Your task to perform on an android device: Go to settings Image 0: 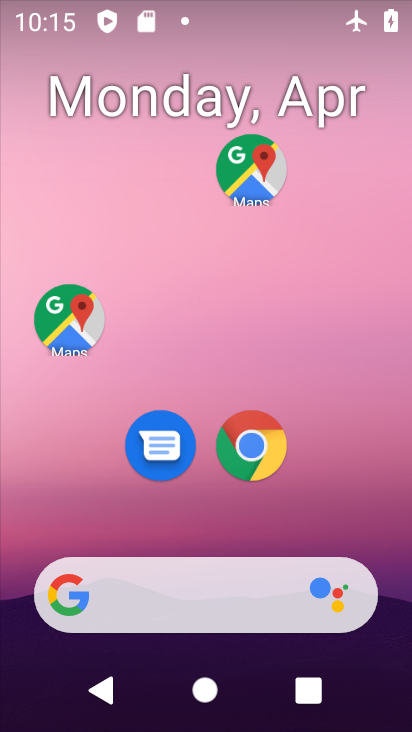
Step 0: drag from (205, 388) to (237, 95)
Your task to perform on an android device: Go to settings Image 1: 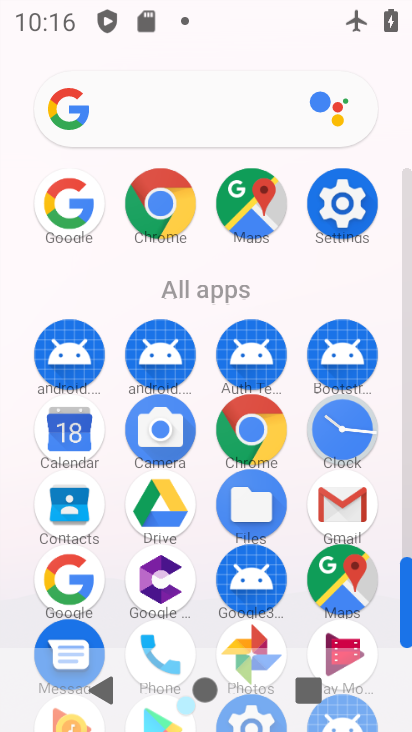
Step 1: click (331, 203)
Your task to perform on an android device: Go to settings Image 2: 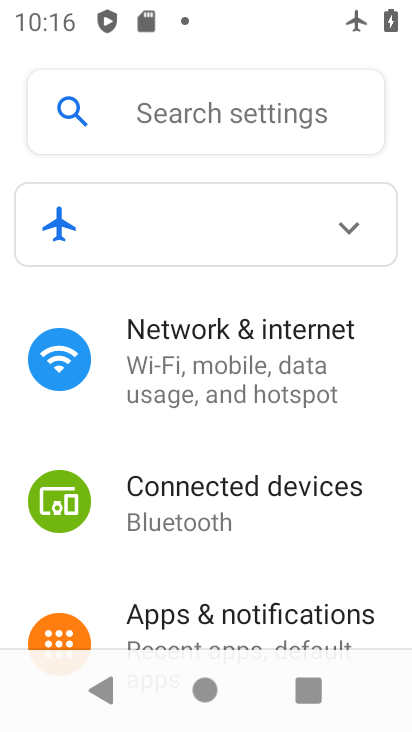
Step 2: task complete